Your task to perform on an android device: Open maps Image 0: 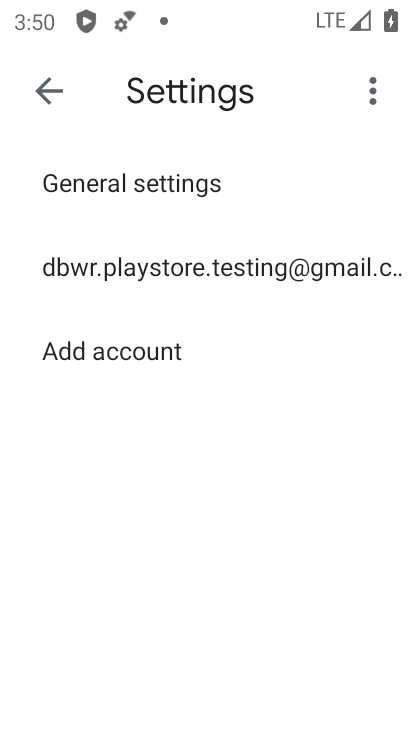
Step 0: press home button
Your task to perform on an android device: Open maps Image 1: 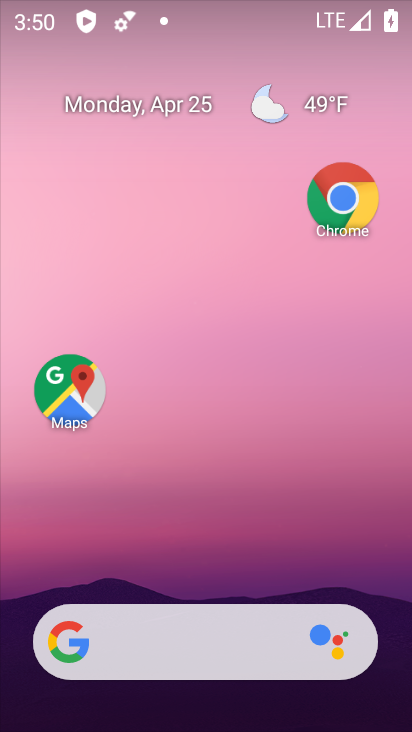
Step 1: click (58, 393)
Your task to perform on an android device: Open maps Image 2: 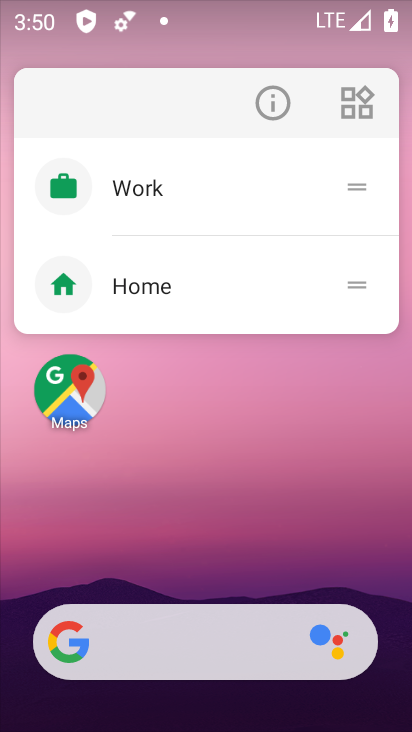
Step 2: click (69, 404)
Your task to perform on an android device: Open maps Image 3: 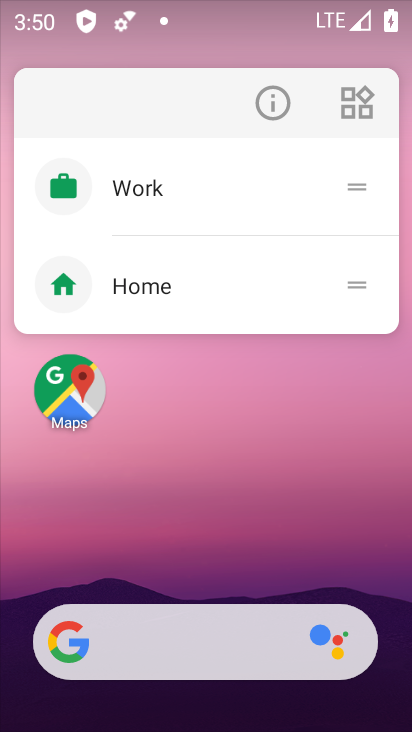
Step 3: click (73, 387)
Your task to perform on an android device: Open maps Image 4: 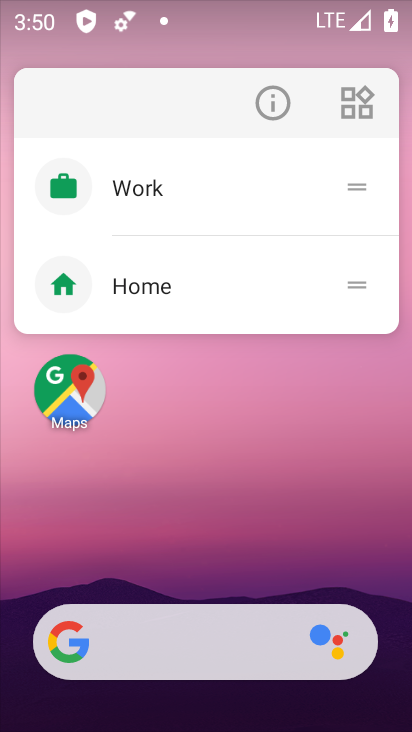
Step 4: click (68, 398)
Your task to perform on an android device: Open maps Image 5: 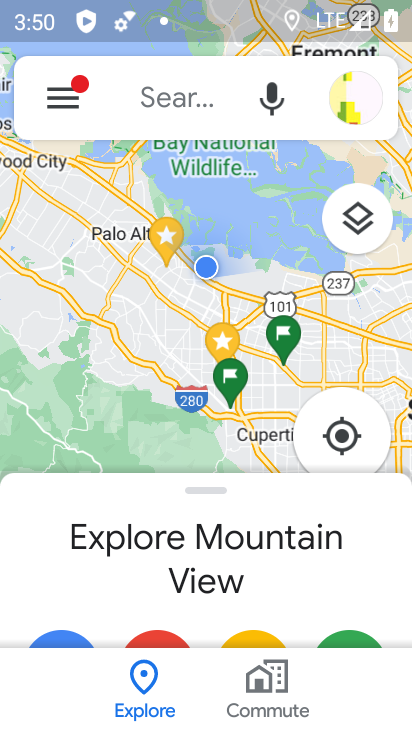
Step 5: task complete